Your task to perform on an android device: Go to wifi settings Image 0: 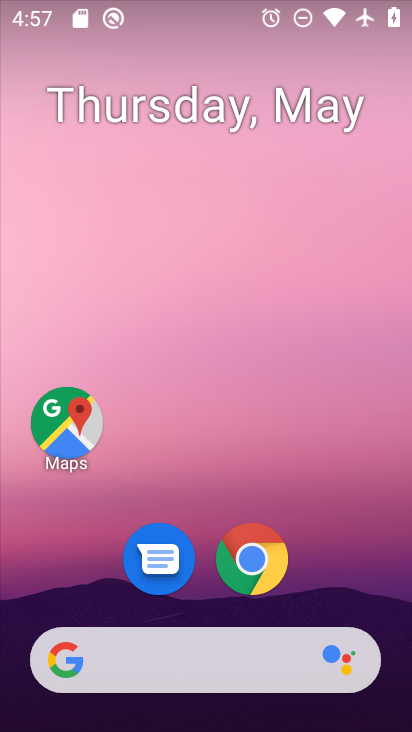
Step 0: drag from (371, 557) to (201, 50)
Your task to perform on an android device: Go to wifi settings Image 1: 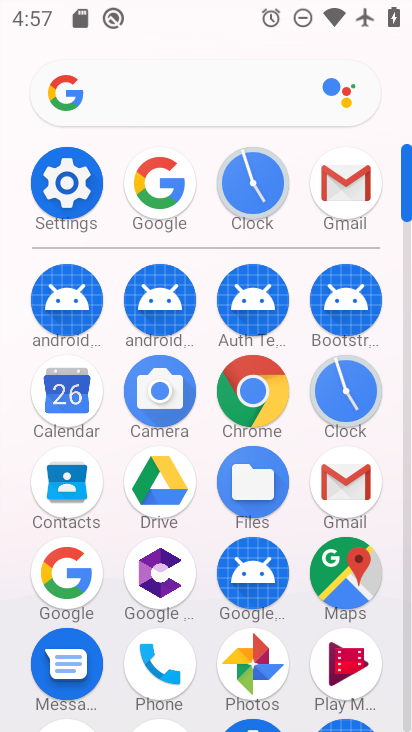
Step 1: click (78, 192)
Your task to perform on an android device: Go to wifi settings Image 2: 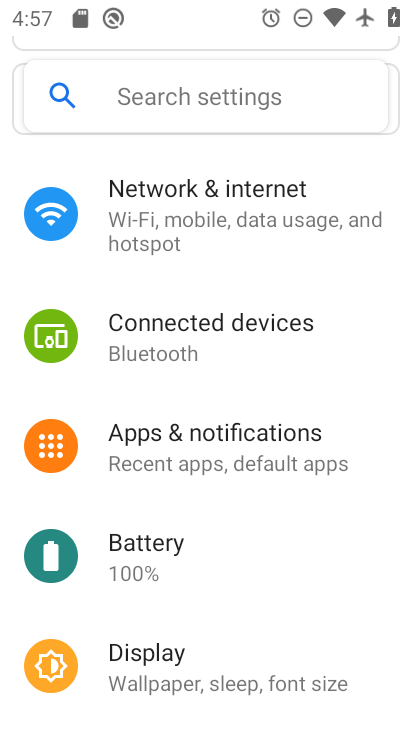
Step 2: click (246, 224)
Your task to perform on an android device: Go to wifi settings Image 3: 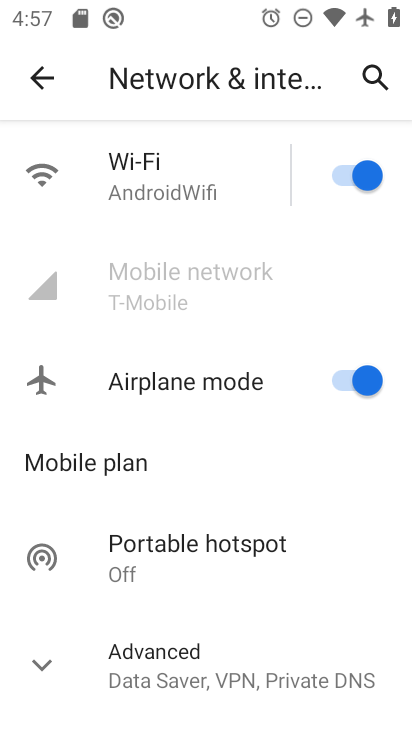
Step 3: click (170, 168)
Your task to perform on an android device: Go to wifi settings Image 4: 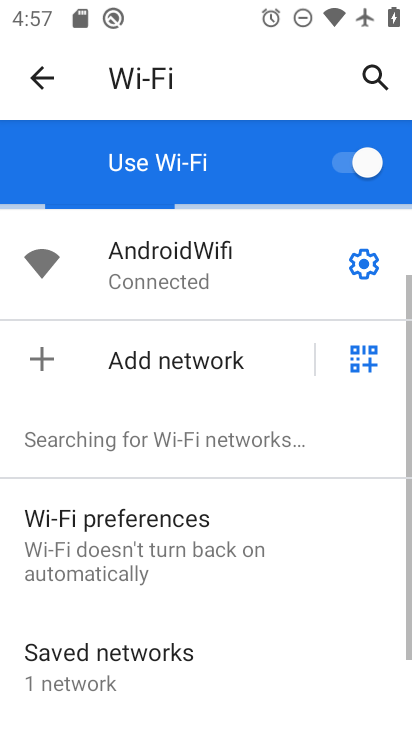
Step 4: task complete